Your task to perform on an android device: empty trash in the gmail app Image 0: 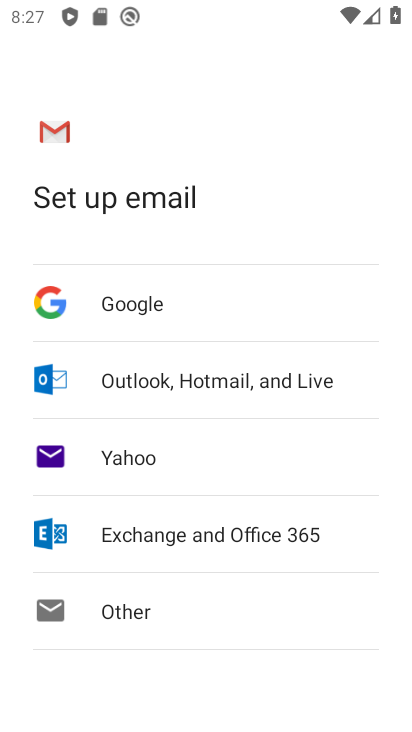
Step 0: press home button
Your task to perform on an android device: empty trash in the gmail app Image 1: 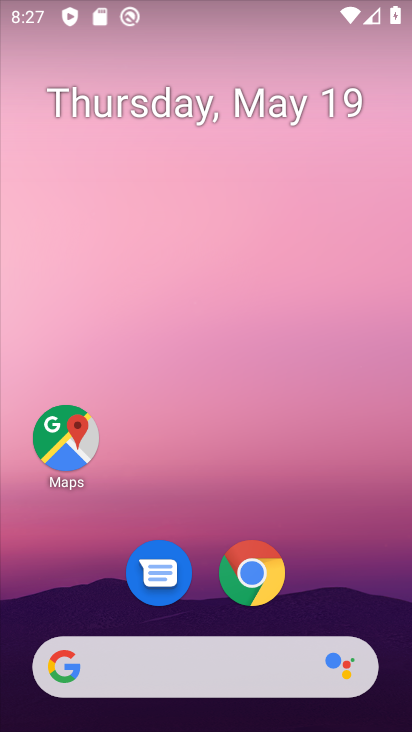
Step 1: drag from (342, 590) to (285, 48)
Your task to perform on an android device: empty trash in the gmail app Image 2: 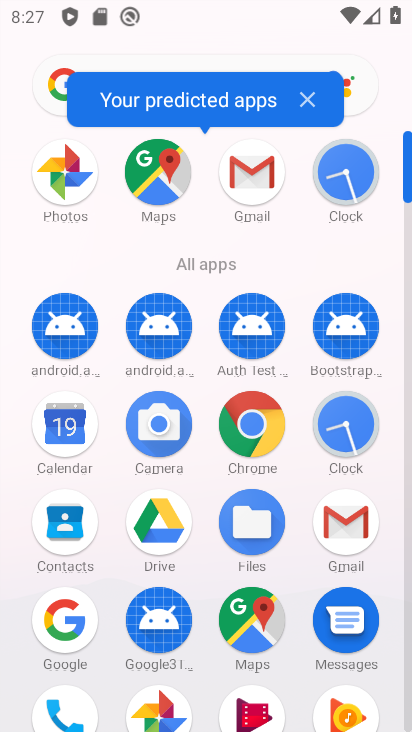
Step 2: click (257, 172)
Your task to perform on an android device: empty trash in the gmail app Image 3: 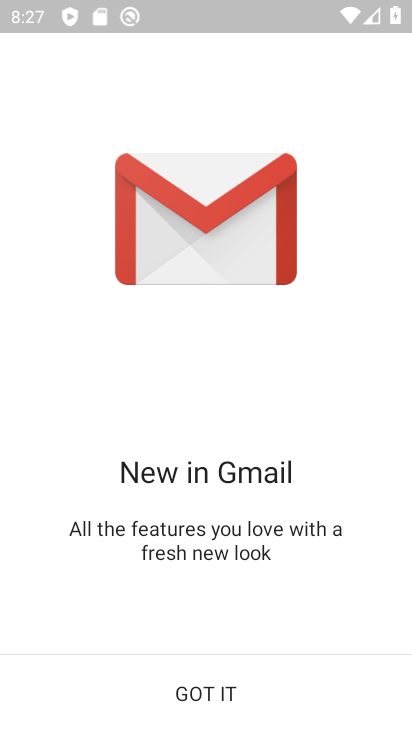
Step 3: click (195, 682)
Your task to perform on an android device: empty trash in the gmail app Image 4: 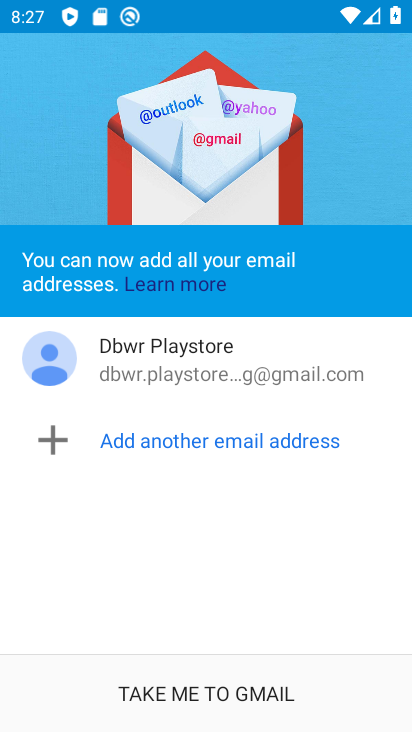
Step 4: click (194, 693)
Your task to perform on an android device: empty trash in the gmail app Image 5: 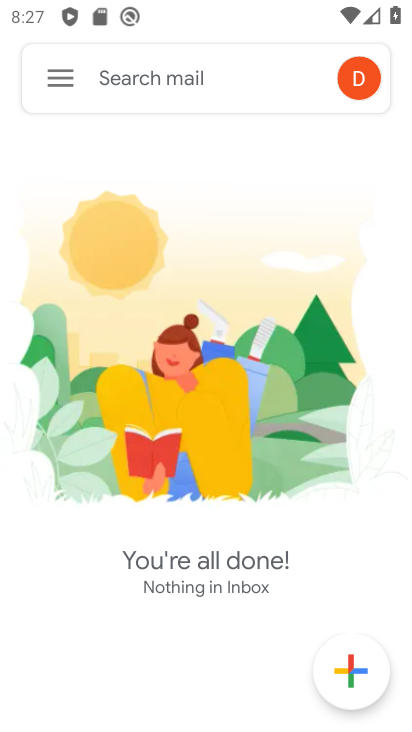
Step 5: click (54, 81)
Your task to perform on an android device: empty trash in the gmail app Image 6: 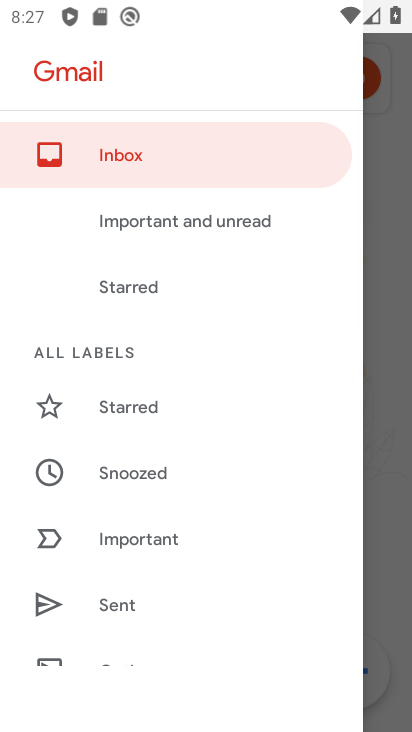
Step 6: drag from (185, 571) to (208, 286)
Your task to perform on an android device: empty trash in the gmail app Image 7: 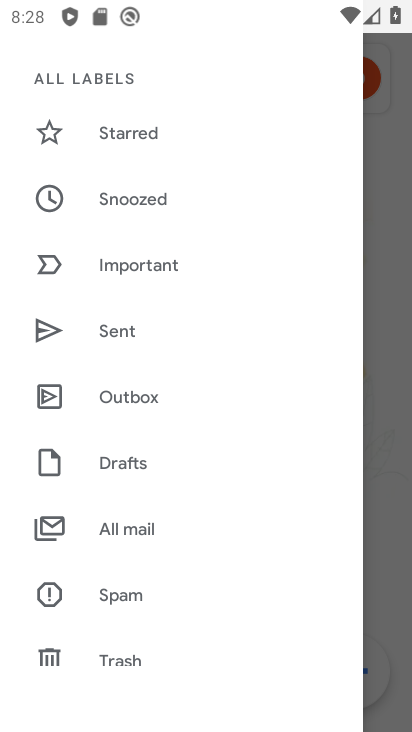
Step 7: drag from (239, 555) to (236, 373)
Your task to perform on an android device: empty trash in the gmail app Image 8: 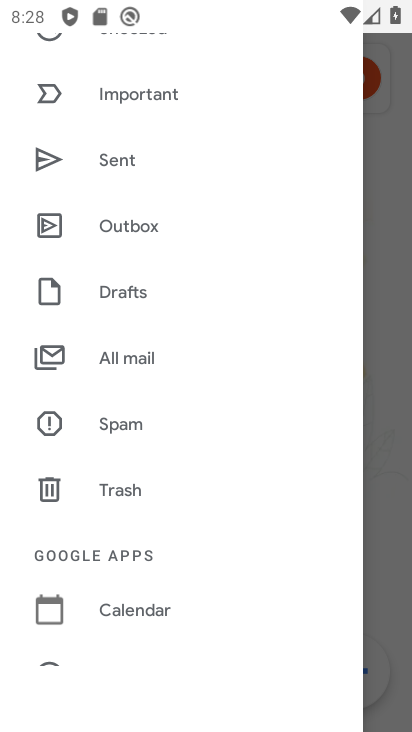
Step 8: click (117, 496)
Your task to perform on an android device: empty trash in the gmail app Image 9: 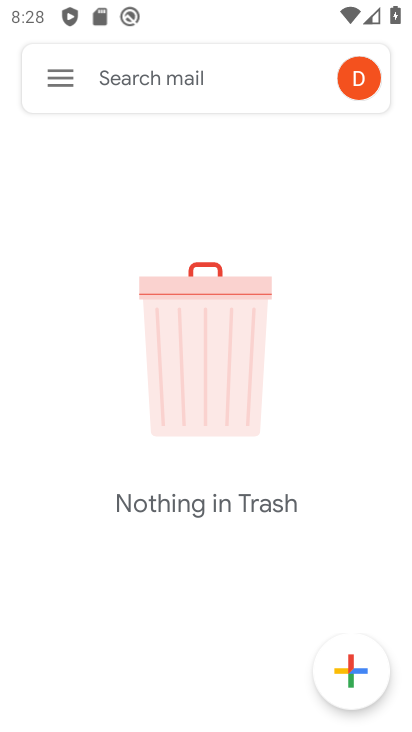
Step 9: task complete